Your task to perform on an android device: Do I have any events tomorrow? Image 0: 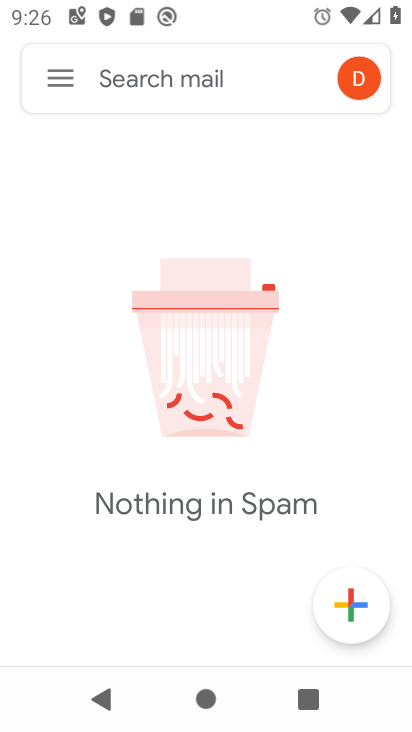
Step 0: press home button
Your task to perform on an android device: Do I have any events tomorrow? Image 1: 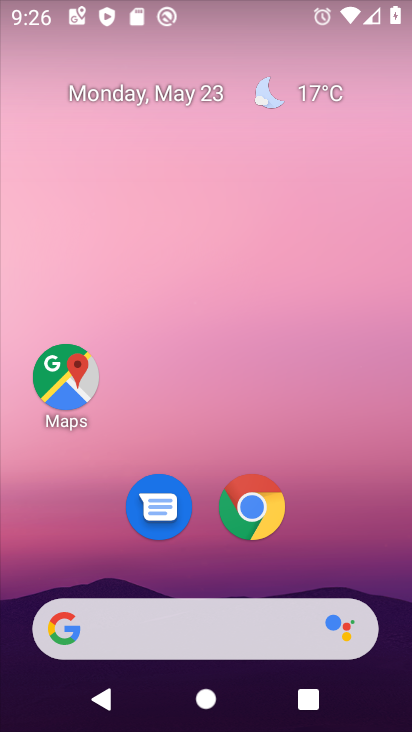
Step 1: drag from (366, 585) to (358, 15)
Your task to perform on an android device: Do I have any events tomorrow? Image 2: 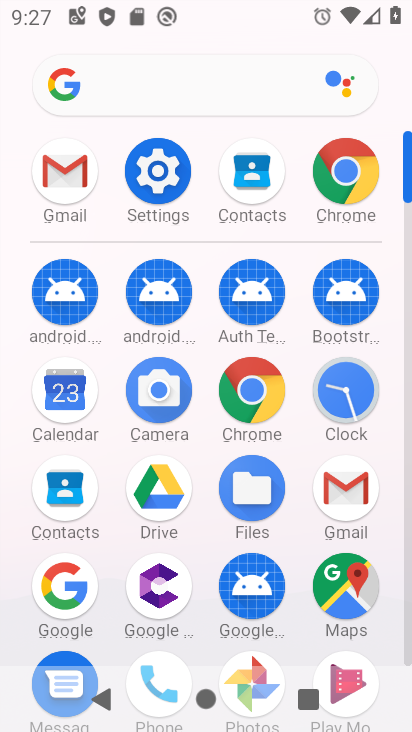
Step 2: click (68, 391)
Your task to perform on an android device: Do I have any events tomorrow? Image 3: 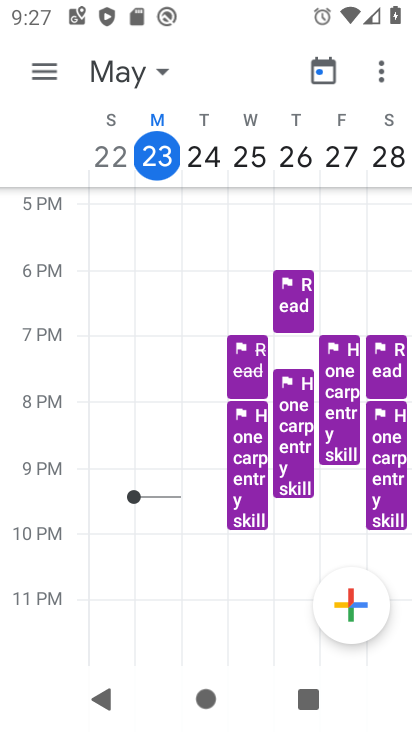
Step 3: click (47, 66)
Your task to perform on an android device: Do I have any events tomorrow? Image 4: 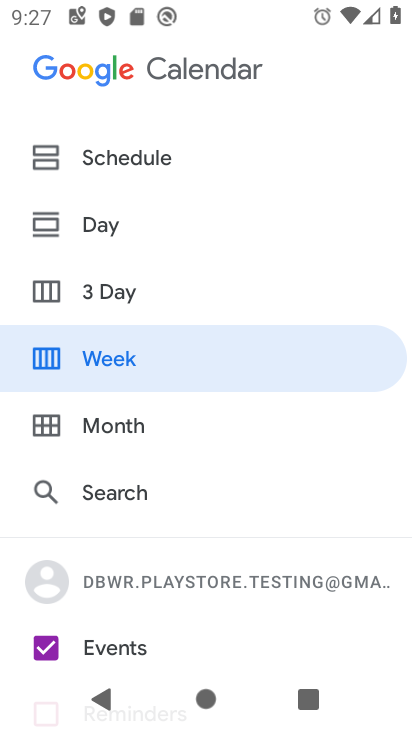
Step 4: click (95, 157)
Your task to perform on an android device: Do I have any events tomorrow? Image 5: 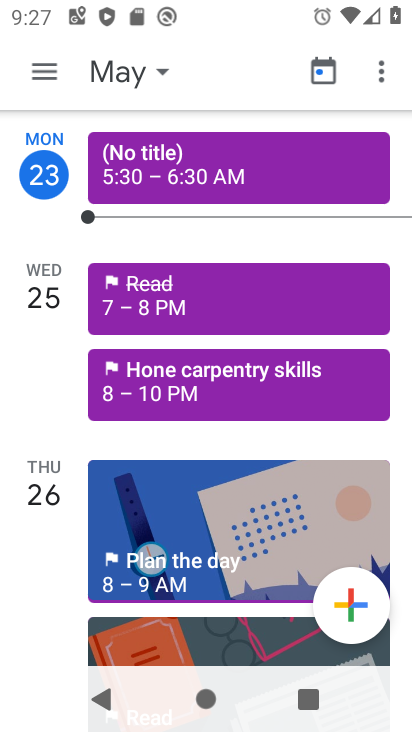
Step 5: click (165, 73)
Your task to perform on an android device: Do I have any events tomorrow? Image 6: 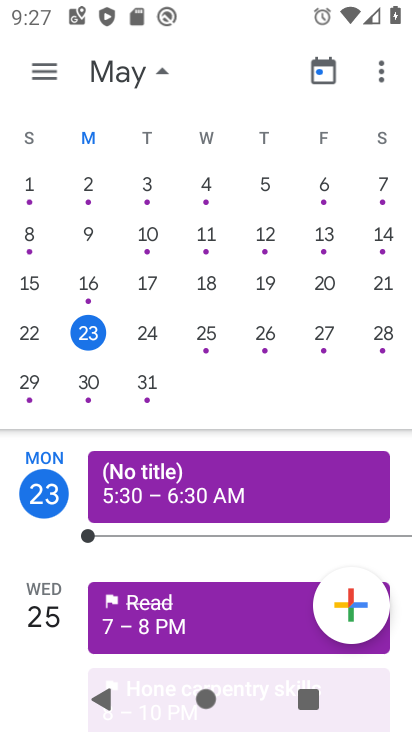
Step 6: click (144, 332)
Your task to perform on an android device: Do I have any events tomorrow? Image 7: 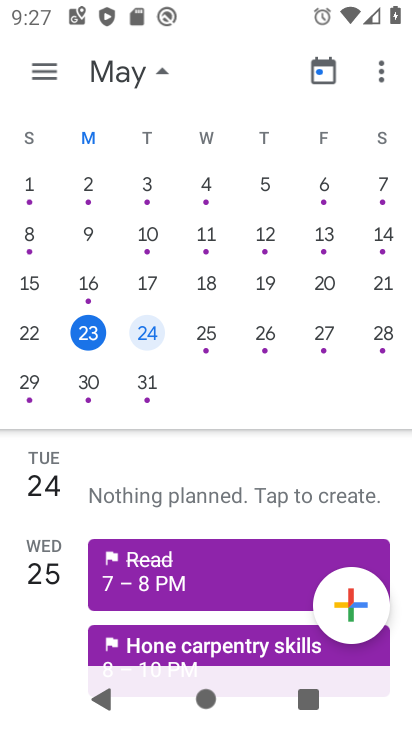
Step 7: click (148, 501)
Your task to perform on an android device: Do I have any events tomorrow? Image 8: 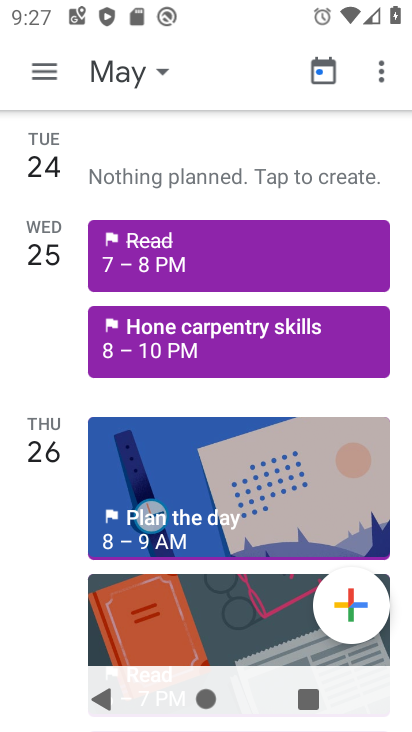
Step 8: click (137, 180)
Your task to perform on an android device: Do I have any events tomorrow? Image 9: 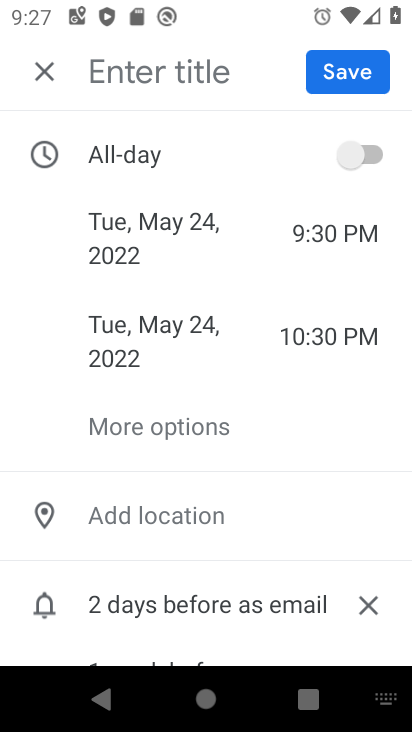
Step 9: task complete